Your task to perform on an android device: uninstall "Pluto TV - Live TV and Movies" Image 0: 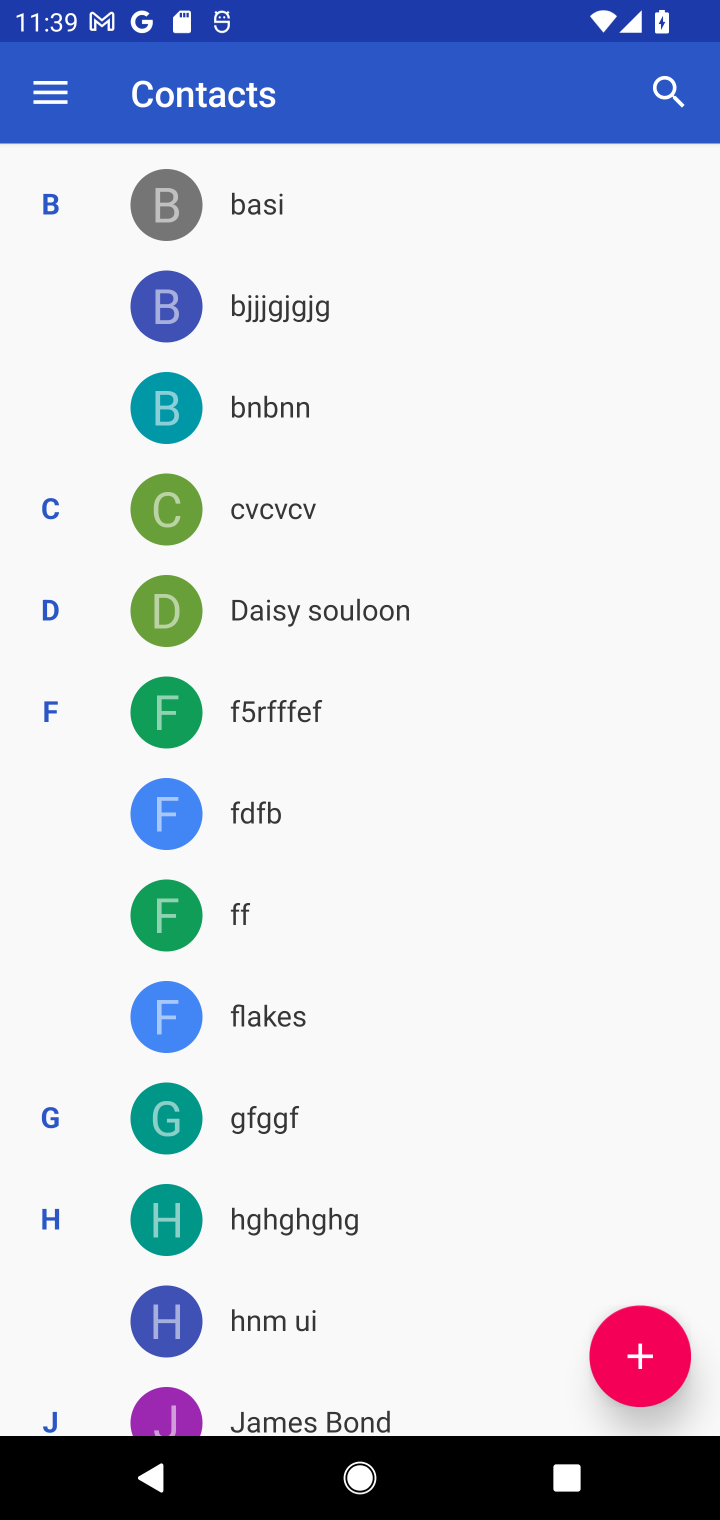
Step 0: press home button
Your task to perform on an android device: uninstall "Pluto TV - Live TV and Movies" Image 1: 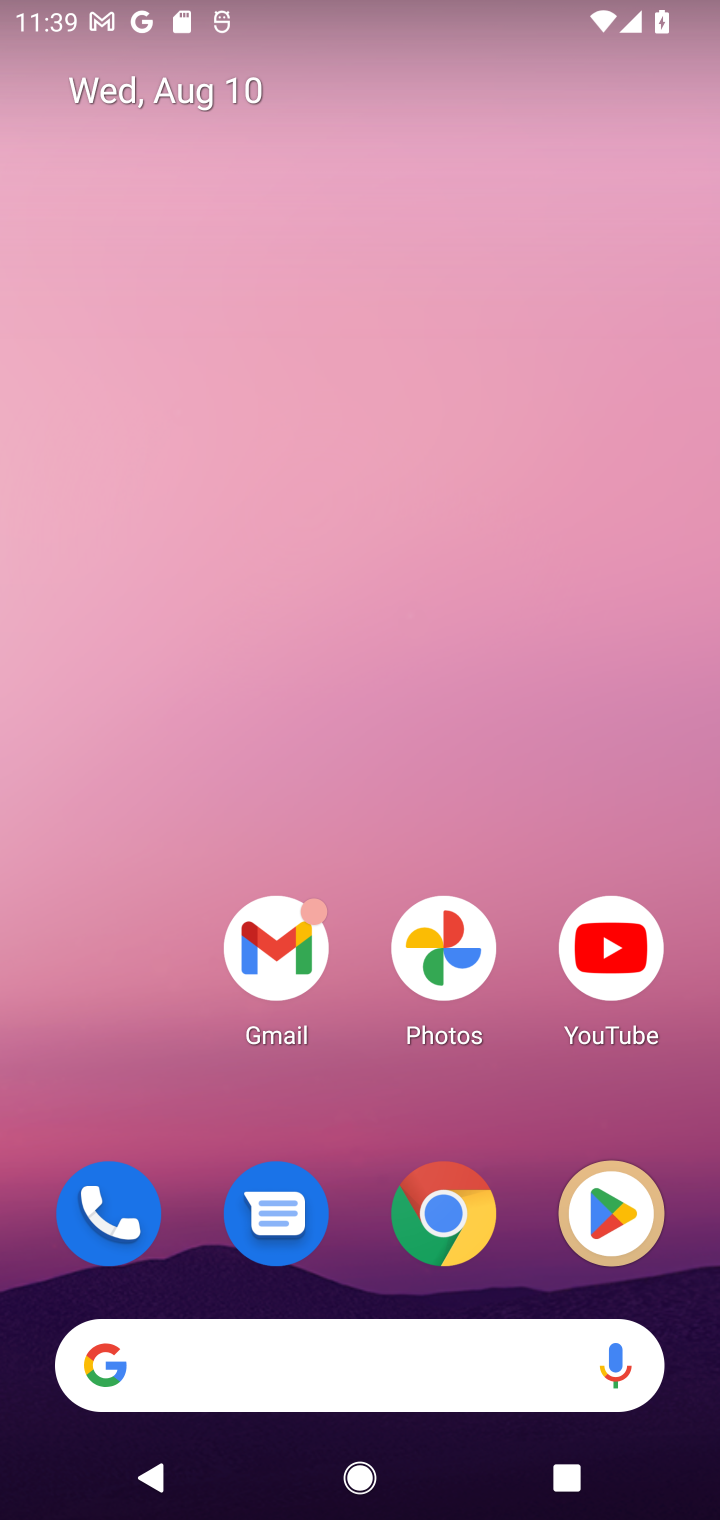
Step 1: drag from (308, 1223) to (392, 381)
Your task to perform on an android device: uninstall "Pluto TV - Live TV and Movies" Image 2: 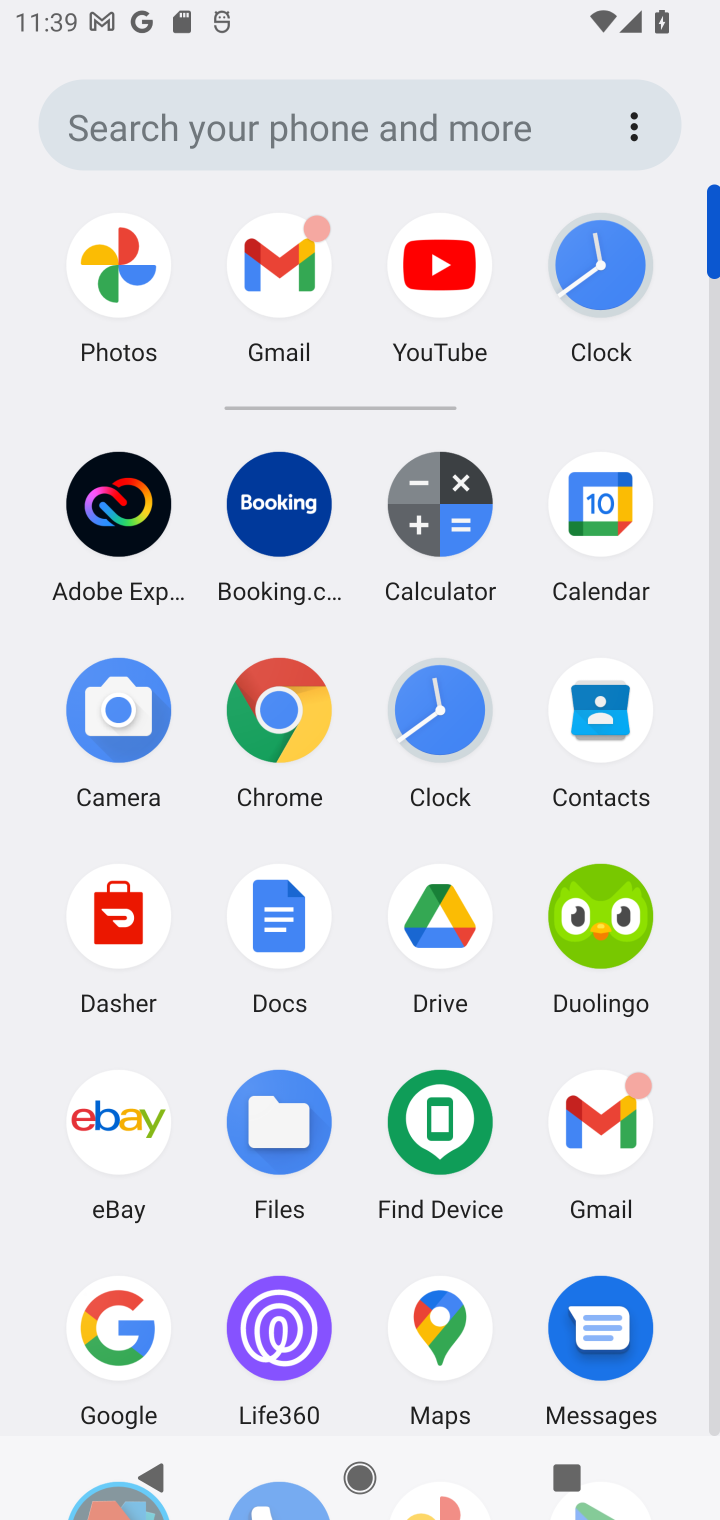
Step 2: drag from (361, 1158) to (359, 696)
Your task to perform on an android device: uninstall "Pluto TV - Live TV and Movies" Image 3: 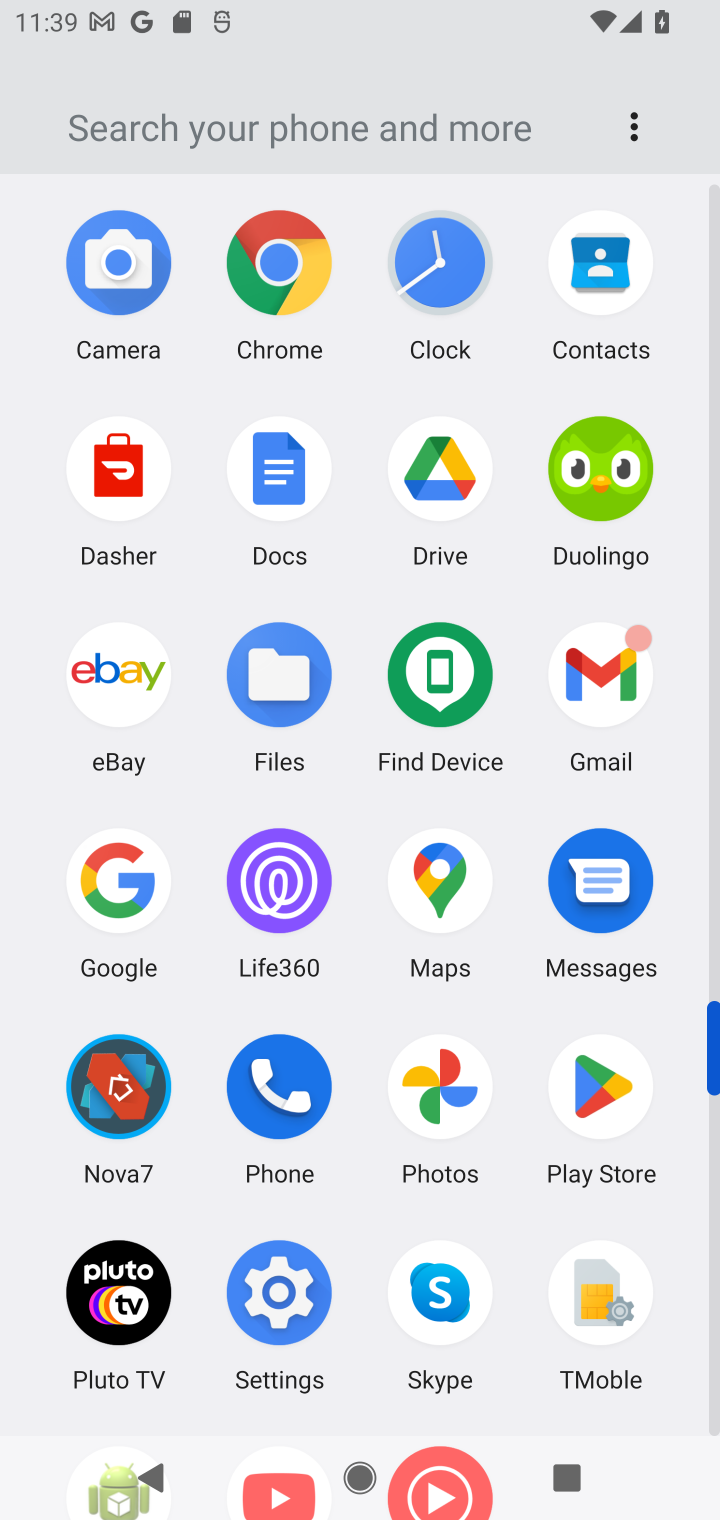
Step 3: click (593, 1074)
Your task to perform on an android device: uninstall "Pluto TV - Live TV and Movies" Image 4: 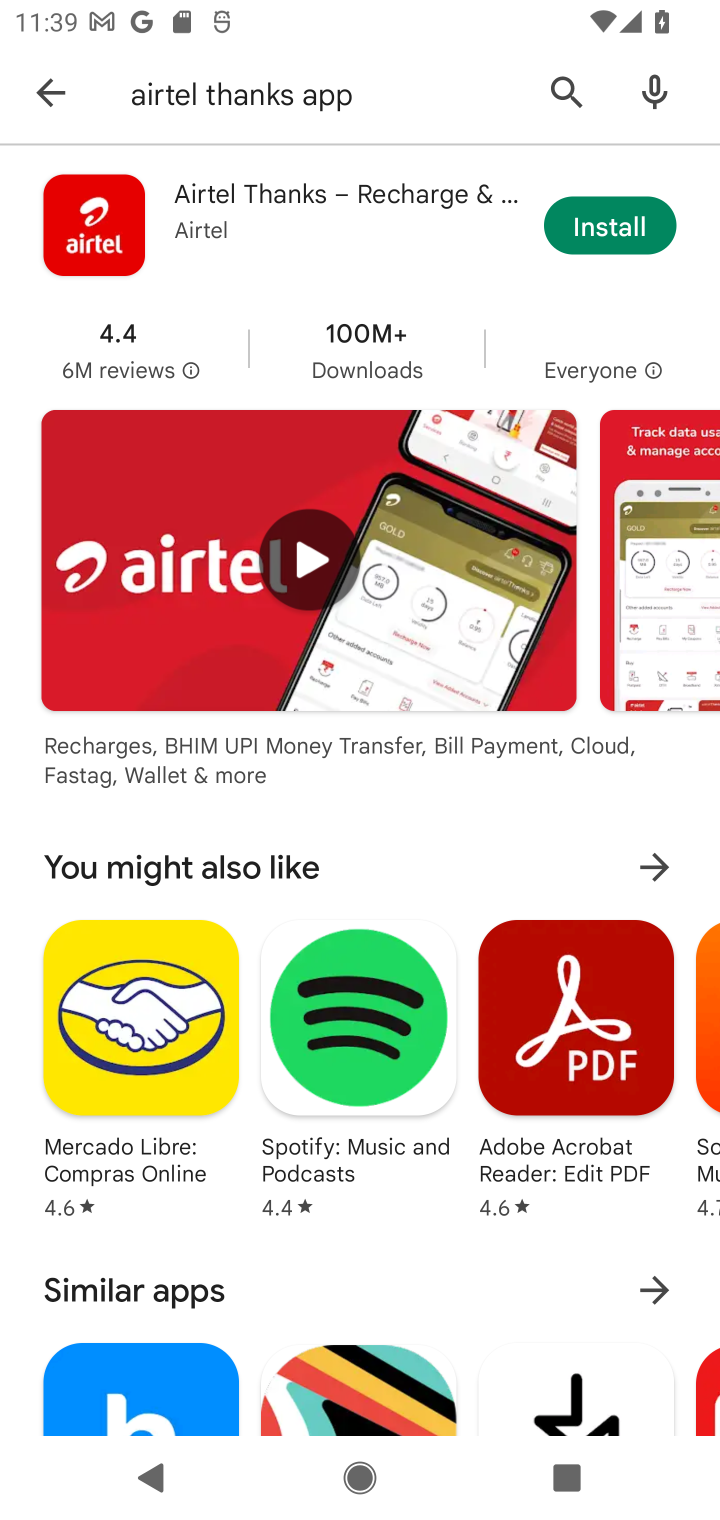
Step 4: click (561, 99)
Your task to perform on an android device: uninstall "Pluto TV - Live TV and Movies" Image 5: 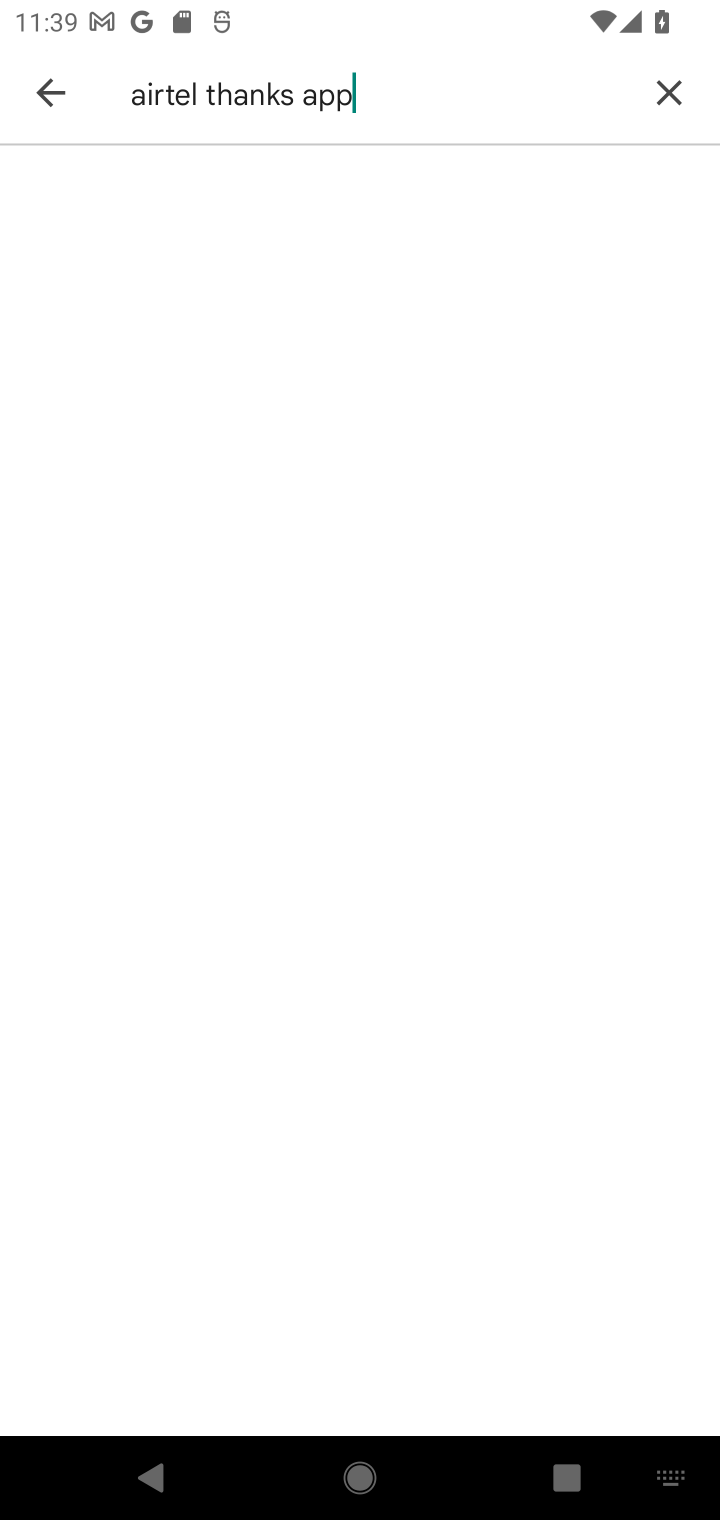
Step 5: click (678, 96)
Your task to perform on an android device: uninstall "Pluto TV - Live TV and Movies" Image 6: 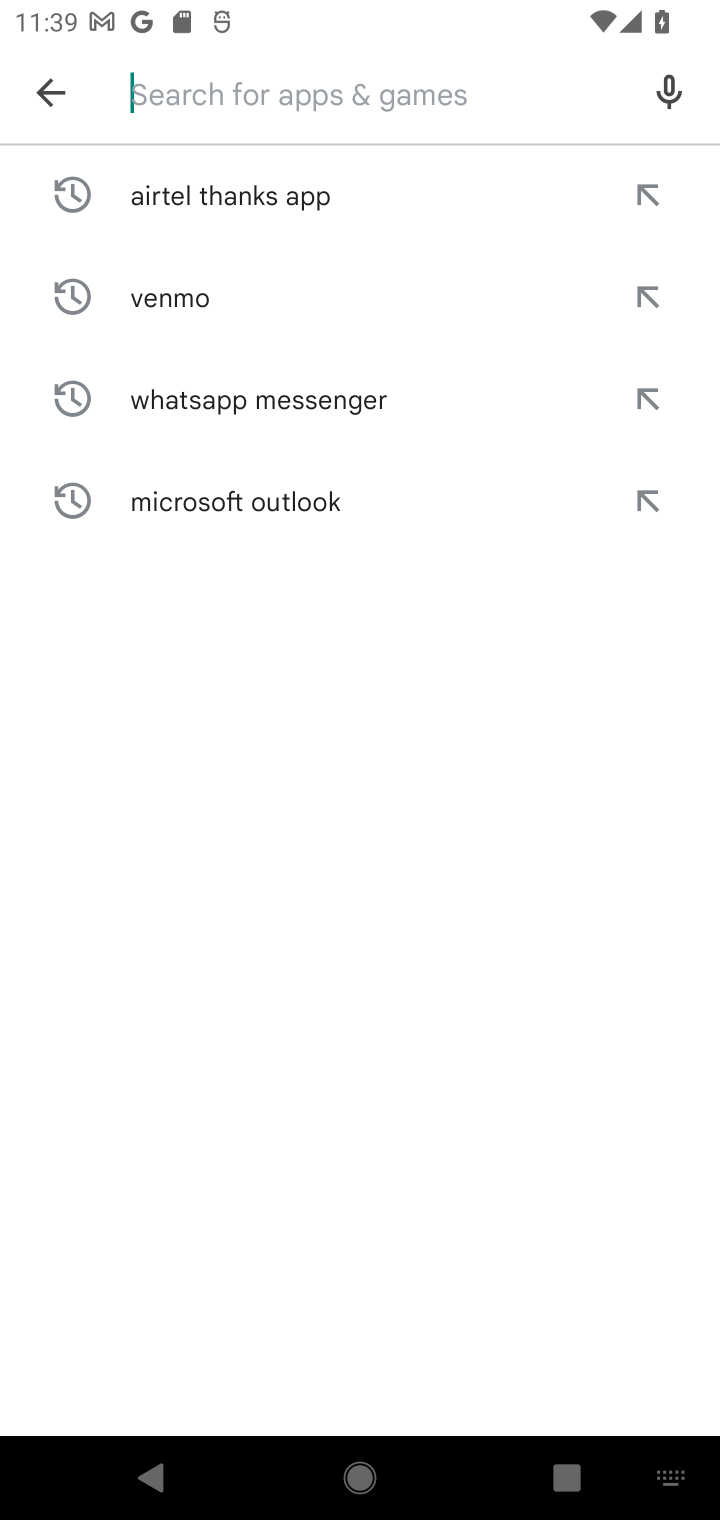
Step 6: click (326, 112)
Your task to perform on an android device: uninstall "Pluto TV - Live TV and Movies" Image 7: 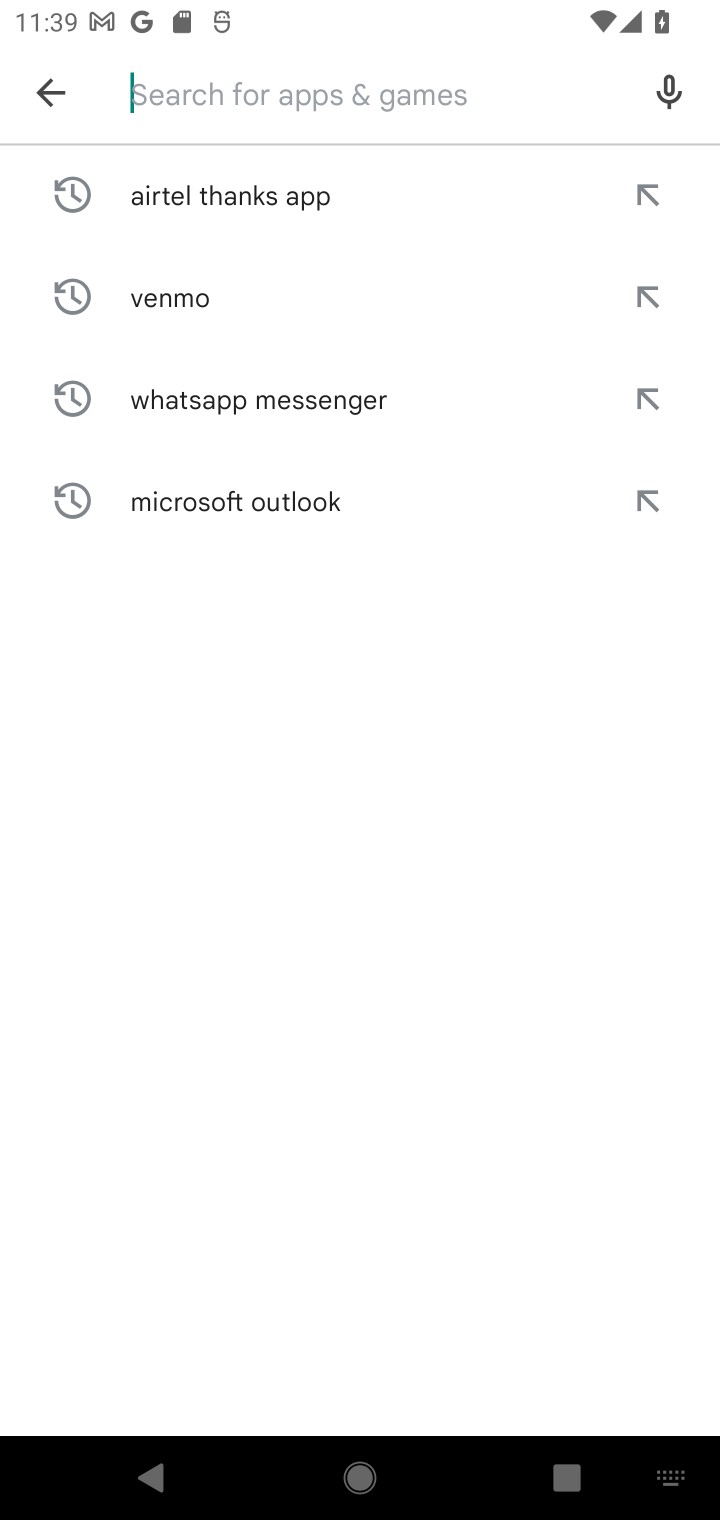
Step 7: type "Pluto TV - Live TV and Movies"
Your task to perform on an android device: uninstall "Pluto TV - Live TV and Movies" Image 8: 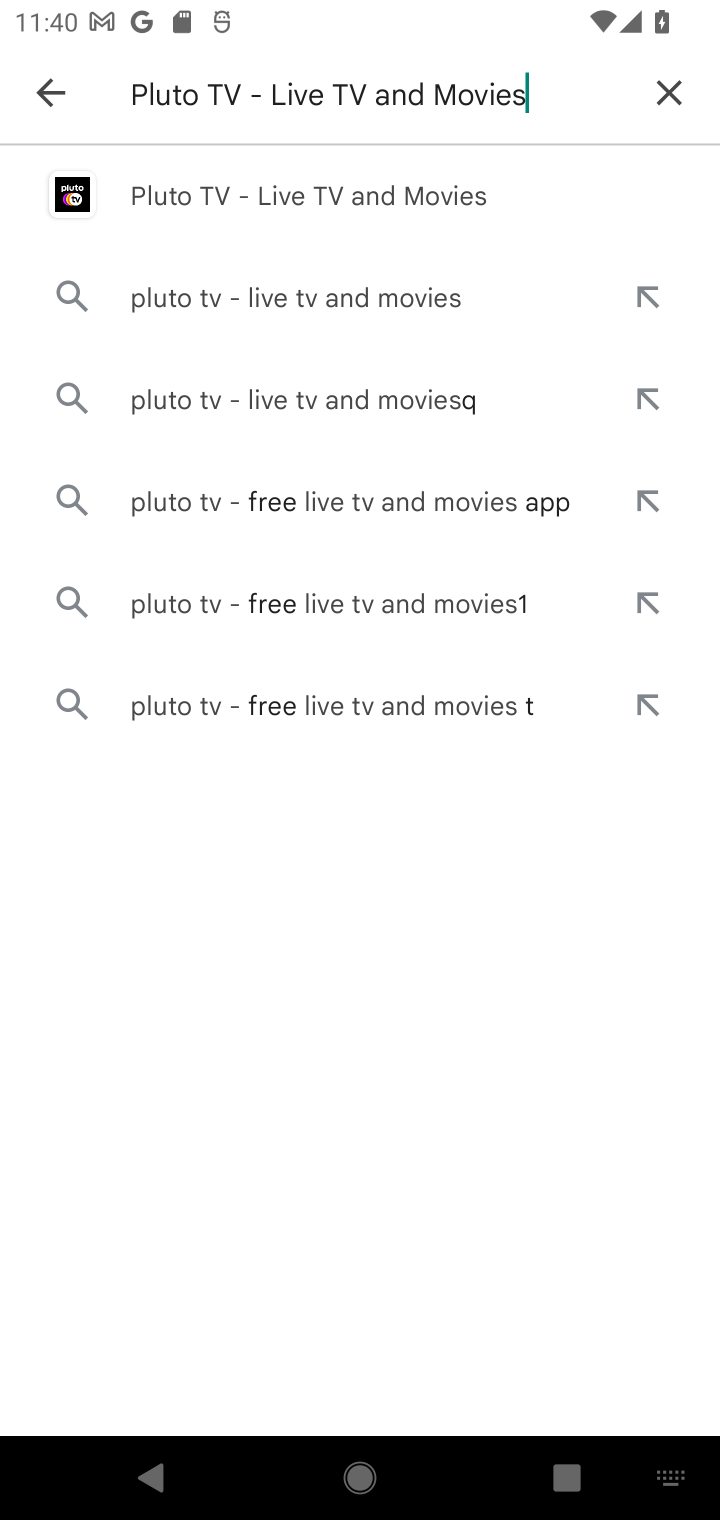
Step 8: click (271, 183)
Your task to perform on an android device: uninstall "Pluto TV - Live TV and Movies" Image 9: 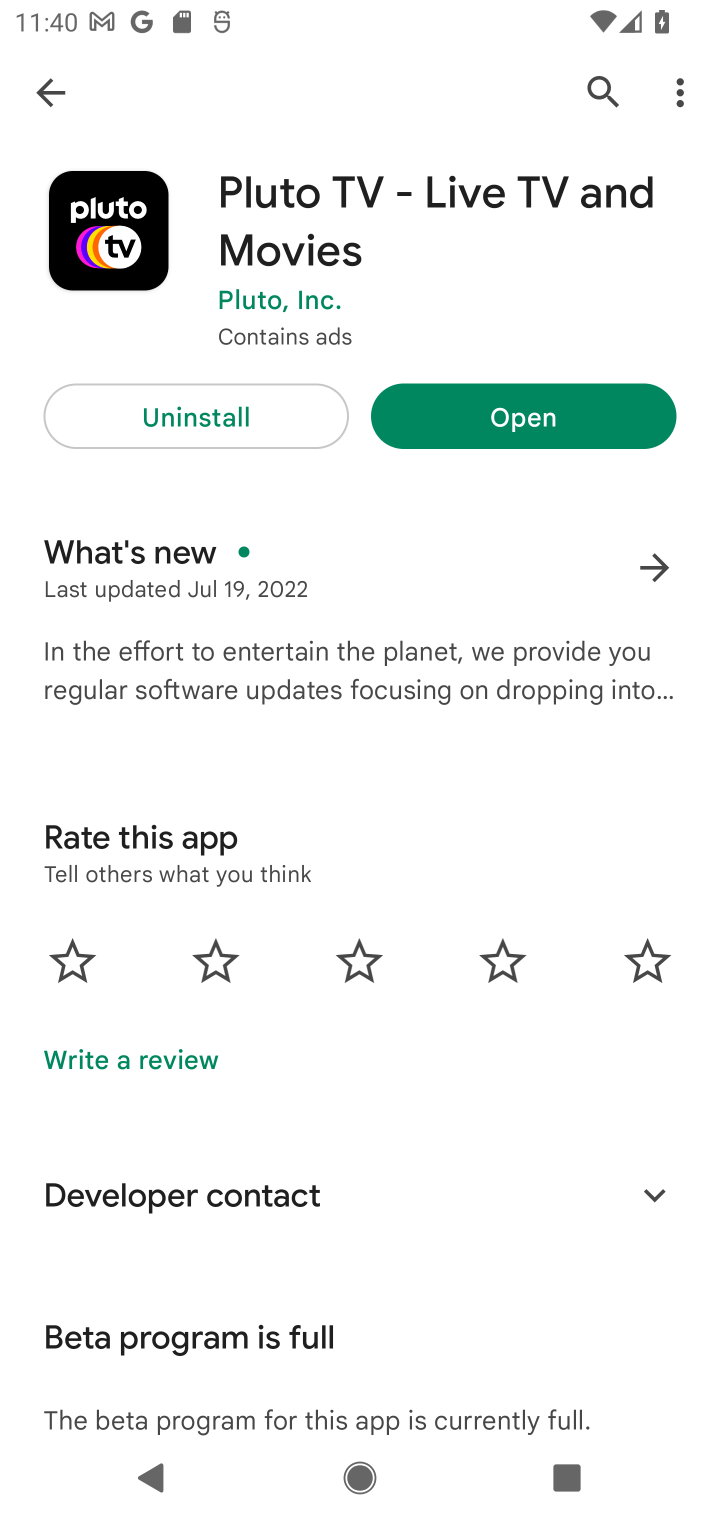
Step 9: click (193, 419)
Your task to perform on an android device: uninstall "Pluto TV - Live TV and Movies" Image 10: 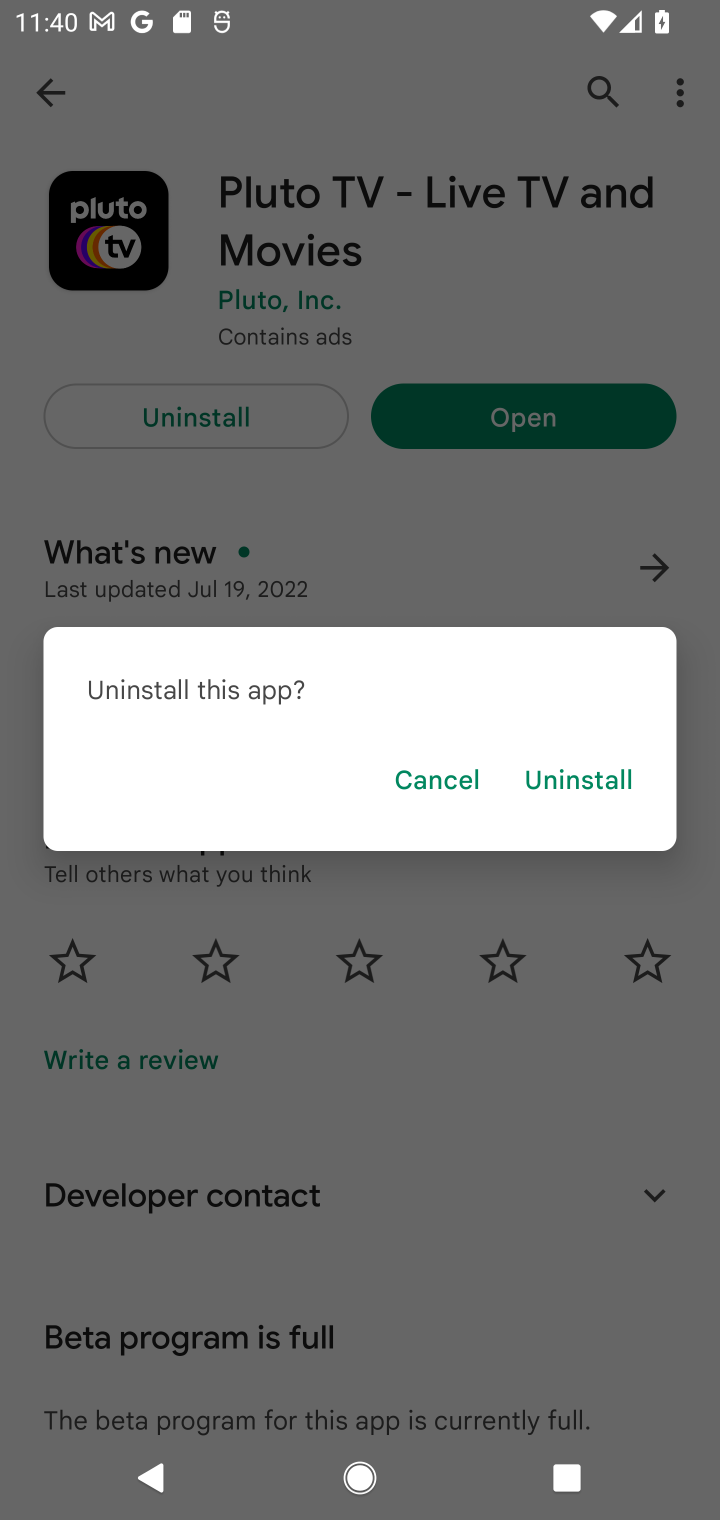
Step 10: click (568, 787)
Your task to perform on an android device: uninstall "Pluto TV - Live TV and Movies" Image 11: 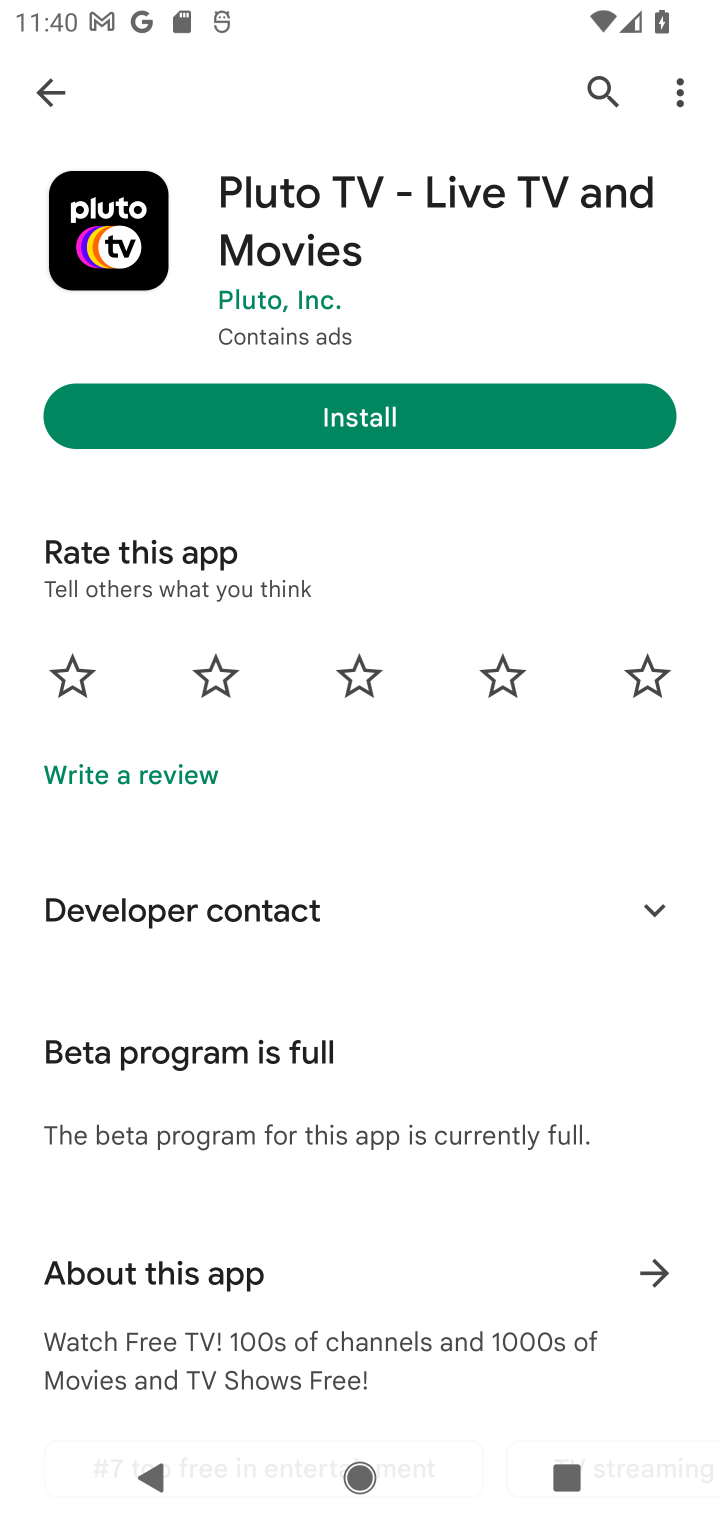
Step 11: task complete